Your task to perform on an android device: toggle notifications settings in the gmail app Image 0: 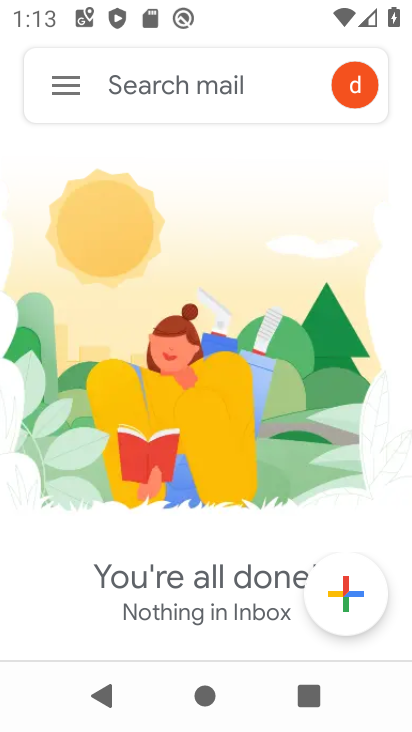
Step 0: press home button
Your task to perform on an android device: toggle notifications settings in the gmail app Image 1: 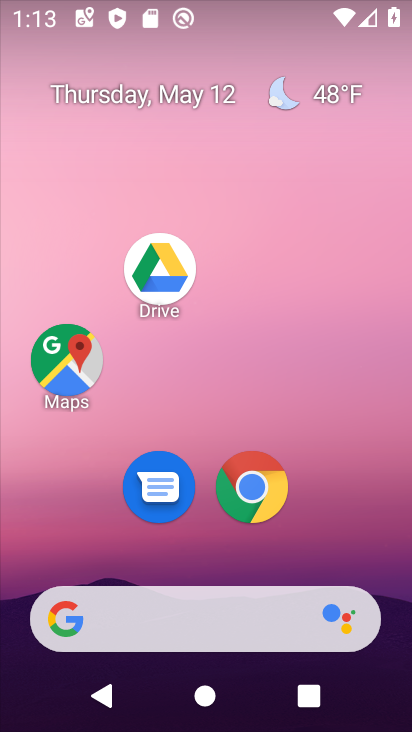
Step 1: drag from (211, 567) to (178, 76)
Your task to perform on an android device: toggle notifications settings in the gmail app Image 2: 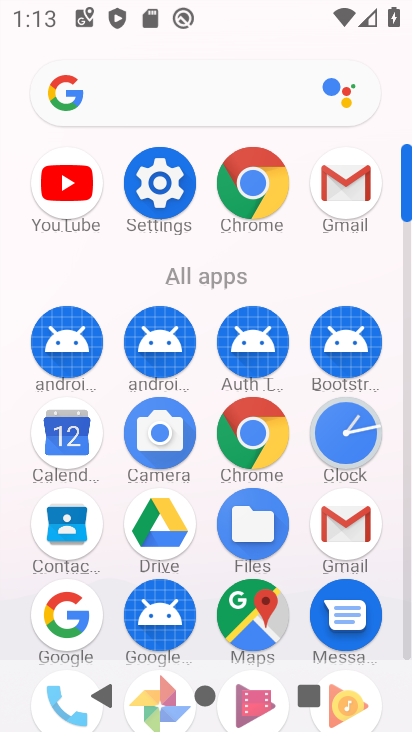
Step 2: click (359, 521)
Your task to perform on an android device: toggle notifications settings in the gmail app Image 3: 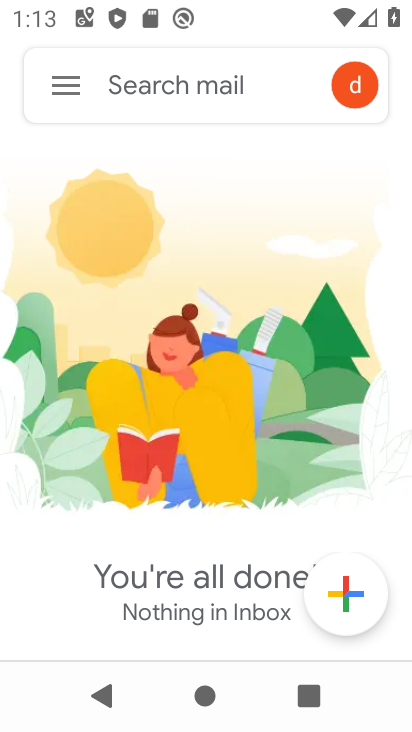
Step 3: click (43, 83)
Your task to perform on an android device: toggle notifications settings in the gmail app Image 4: 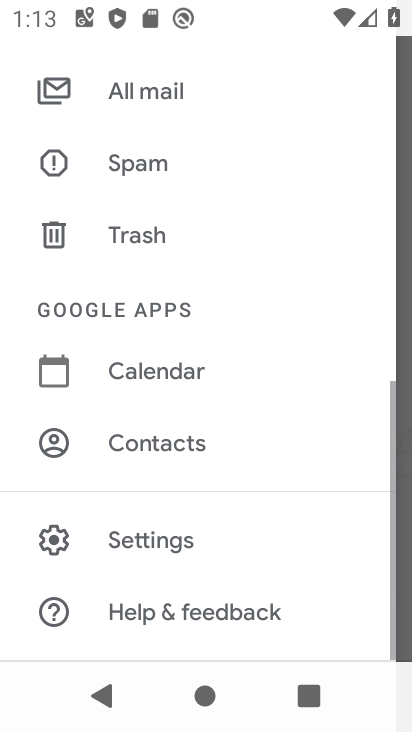
Step 4: click (156, 533)
Your task to perform on an android device: toggle notifications settings in the gmail app Image 5: 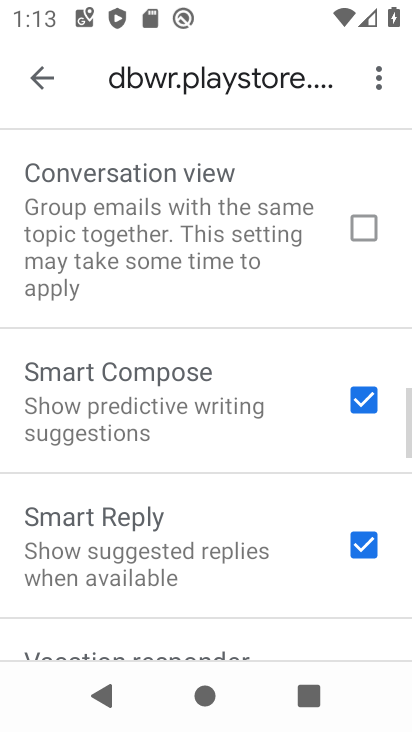
Step 5: click (48, 81)
Your task to perform on an android device: toggle notifications settings in the gmail app Image 6: 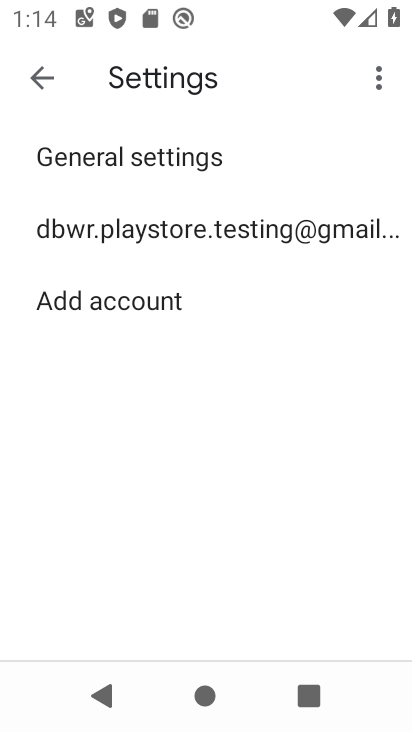
Step 6: click (75, 179)
Your task to perform on an android device: toggle notifications settings in the gmail app Image 7: 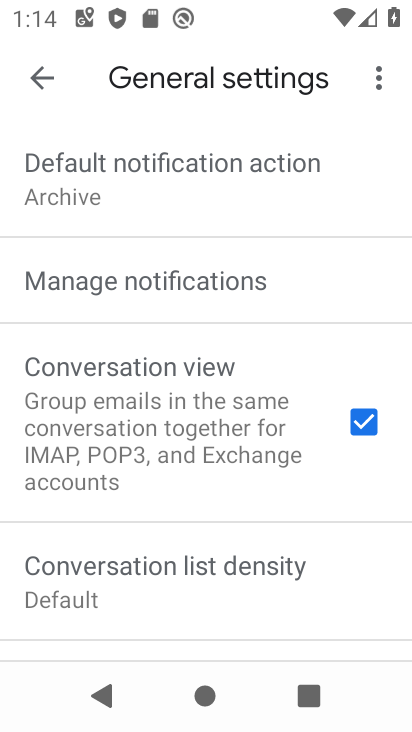
Step 7: click (121, 249)
Your task to perform on an android device: toggle notifications settings in the gmail app Image 8: 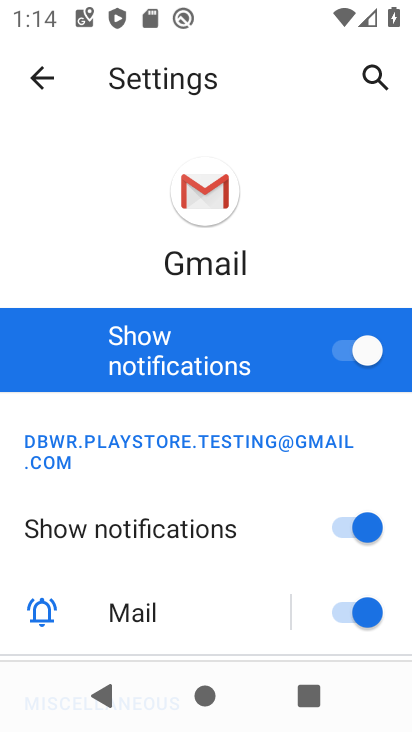
Step 8: click (370, 346)
Your task to perform on an android device: toggle notifications settings in the gmail app Image 9: 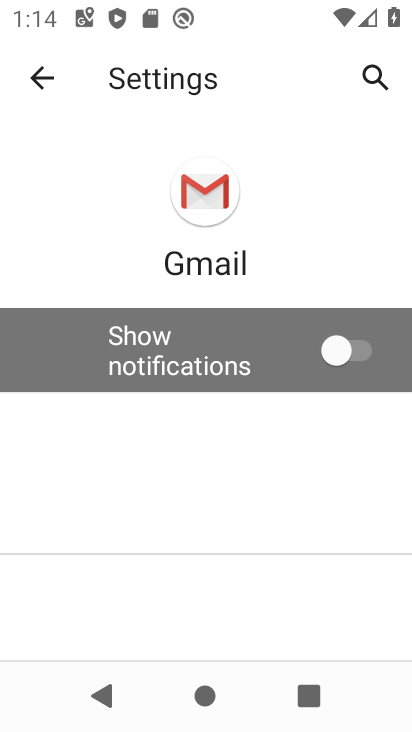
Step 9: task complete